Your task to perform on an android device: toggle sleep mode Image 0: 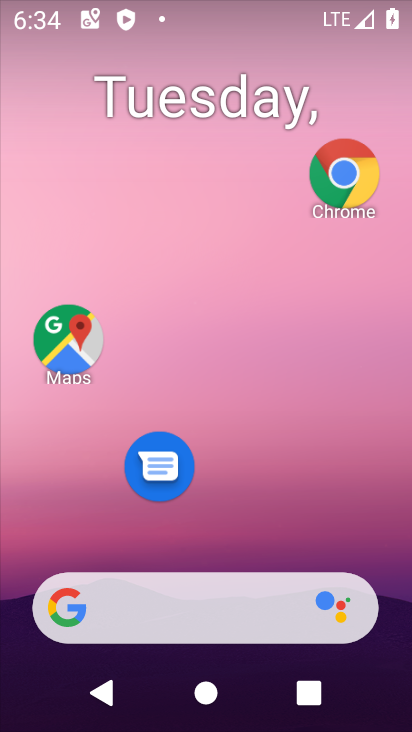
Step 0: press home button
Your task to perform on an android device: toggle sleep mode Image 1: 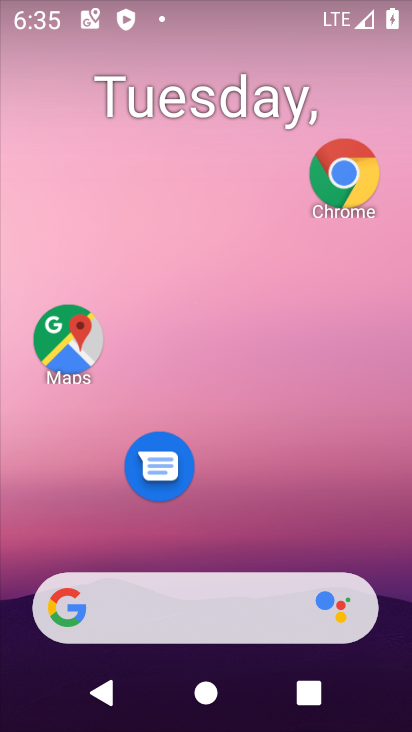
Step 1: drag from (274, 506) to (253, 28)
Your task to perform on an android device: toggle sleep mode Image 2: 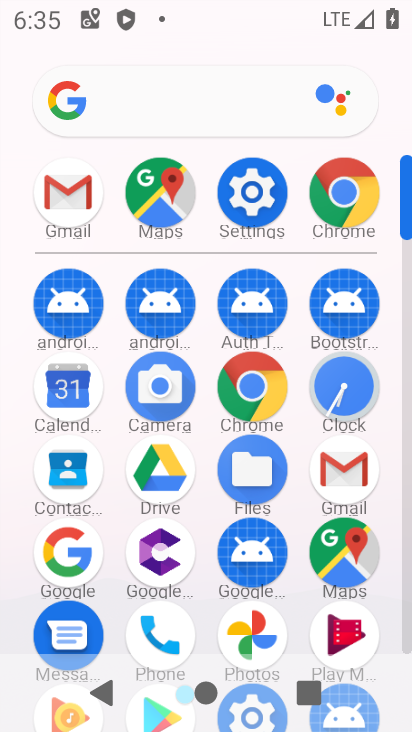
Step 2: click (259, 163)
Your task to perform on an android device: toggle sleep mode Image 3: 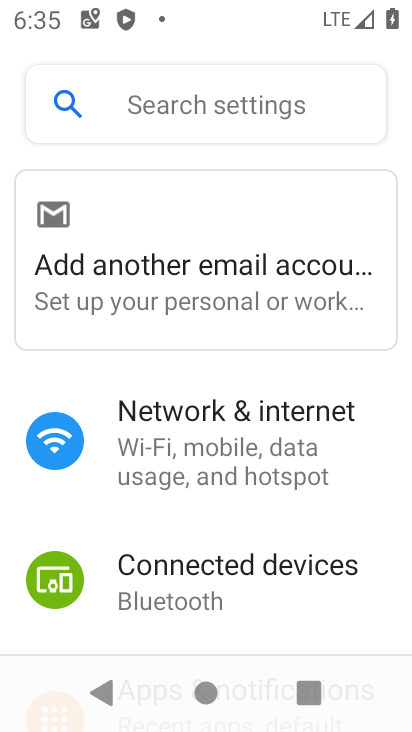
Step 3: click (157, 110)
Your task to perform on an android device: toggle sleep mode Image 4: 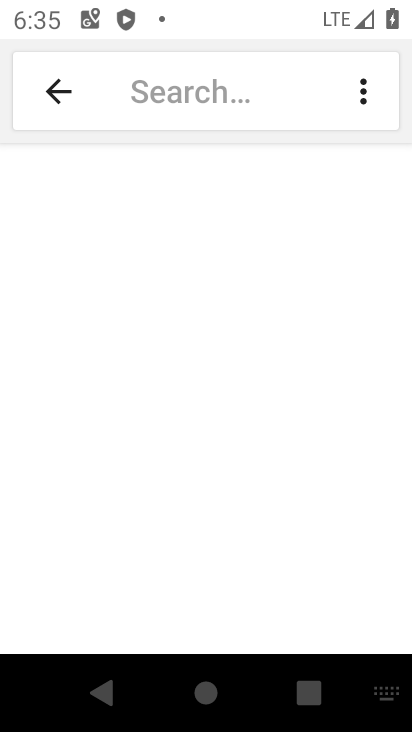
Step 4: click (42, 92)
Your task to perform on an android device: toggle sleep mode Image 5: 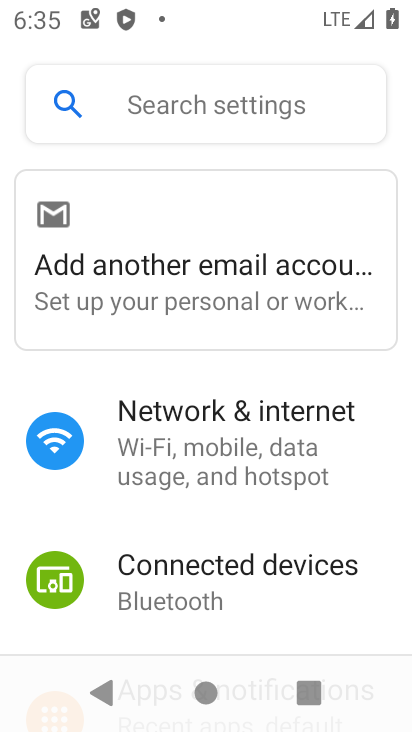
Step 5: drag from (188, 600) to (186, 199)
Your task to perform on an android device: toggle sleep mode Image 6: 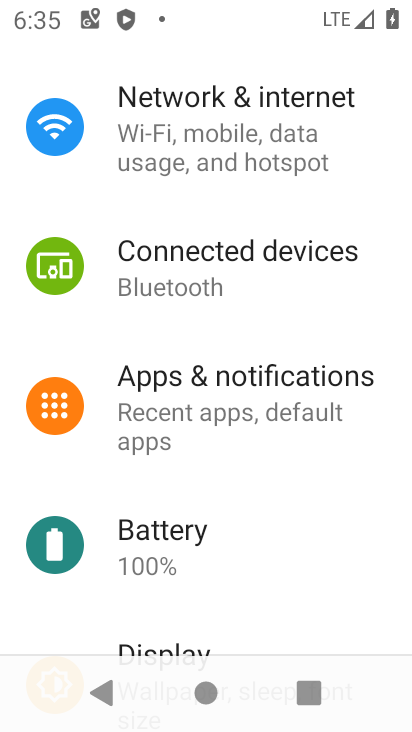
Step 6: drag from (275, 500) to (229, 178)
Your task to perform on an android device: toggle sleep mode Image 7: 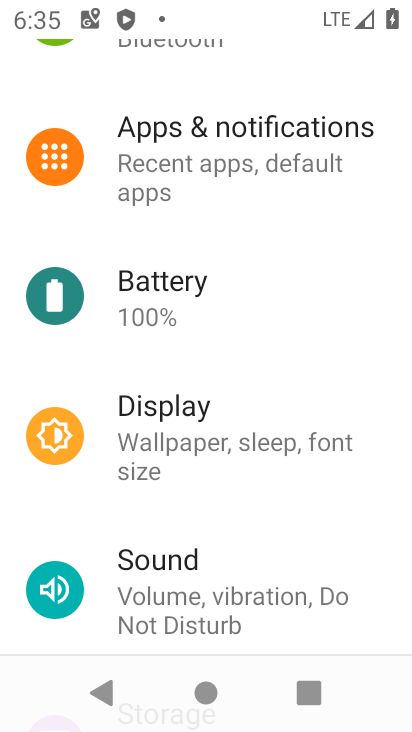
Step 7: drag from (262, 511) to (243, 308)
Your task to perform on an android device: toggle sleep mode Image 8: 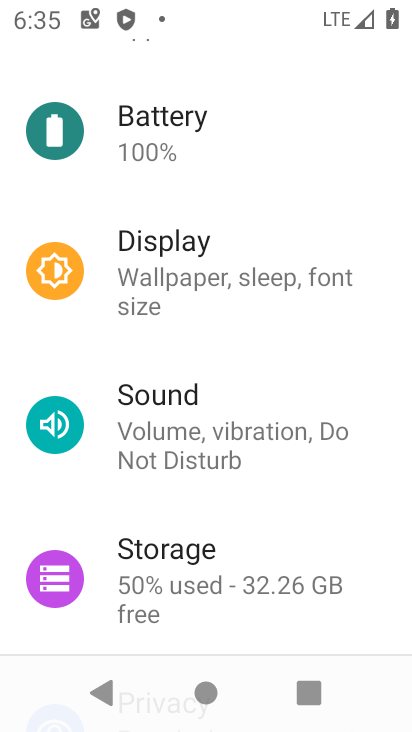
Step 8: click (172, 273)
Your task to perform on an android device: toggle sleep mode Image 9: 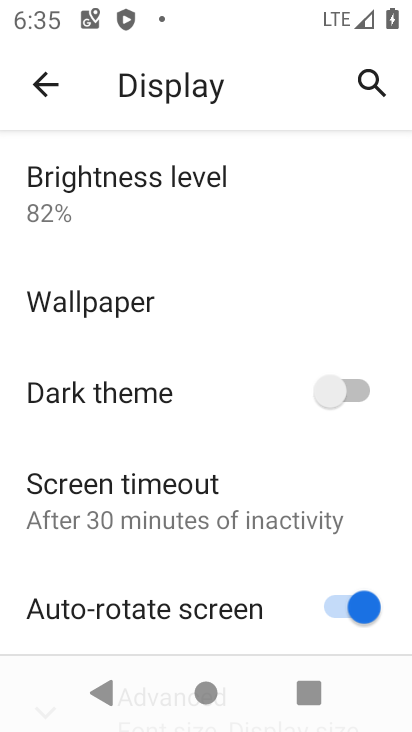
Step 9: task complete